Your task to perform on an android device: empty trash in google photos Image 0: 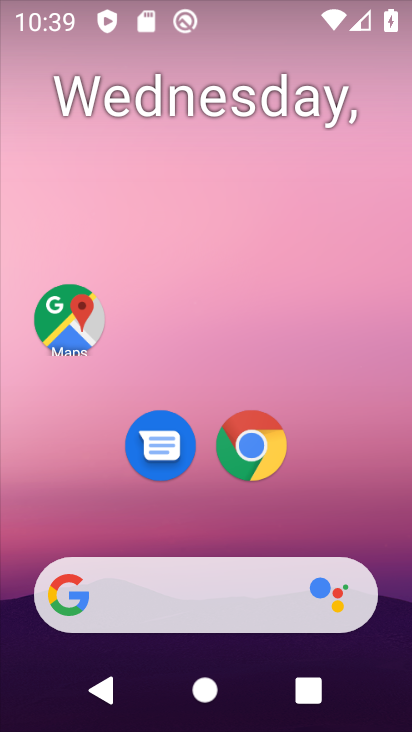
Step 0: drag from (260, 466) to (255, 57)
Your task to perform on an android device: empty trash in google photos Image 1: 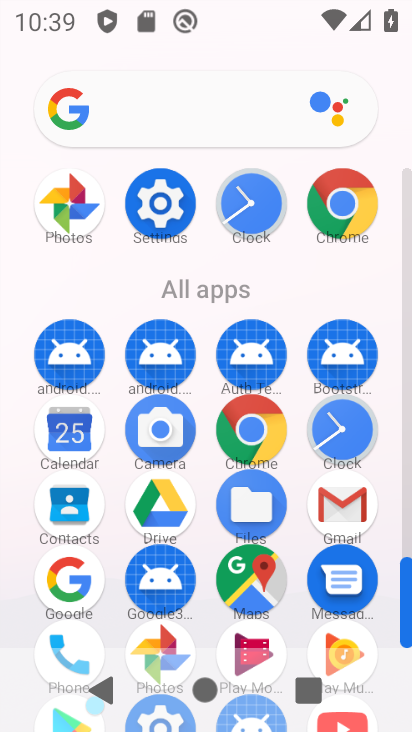
Step 1: click (155, 642)
Your task to perform on an android device: empty trash in google photos Image 2: 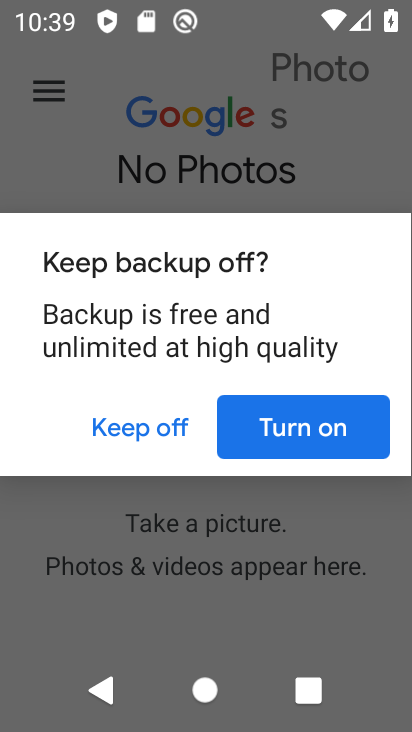
Step 2: click (149, 424)
Your task to perform on an android device: empty trash in google photos Image 3: 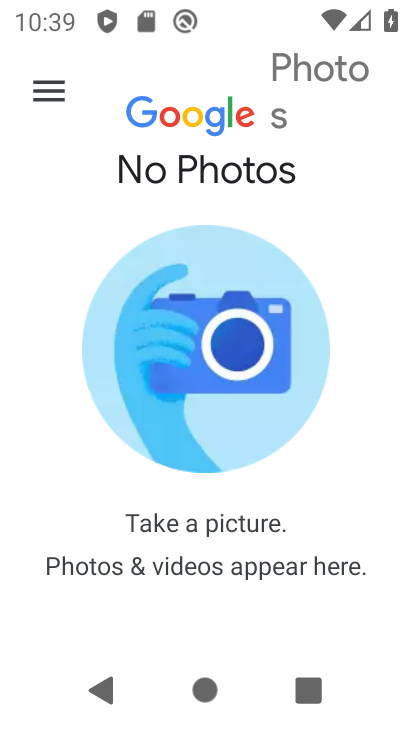
Step 3: click (37, 83)
Your task to perform on an android device: empty trash in google photos Image 4: 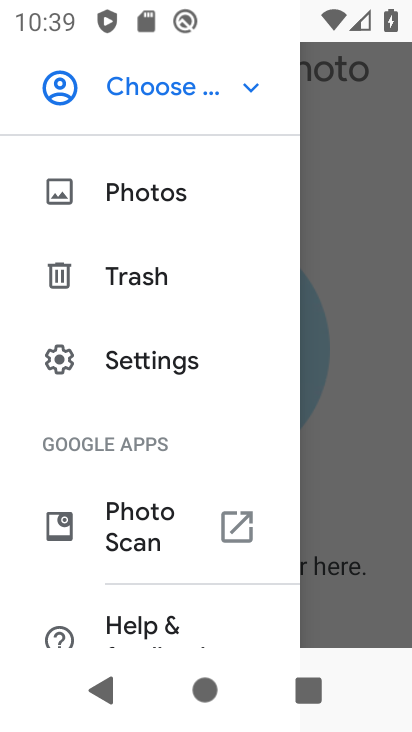
Step 4: click (169, 277)
Your task to perform on an android device: empty trash in google photos Image 5: 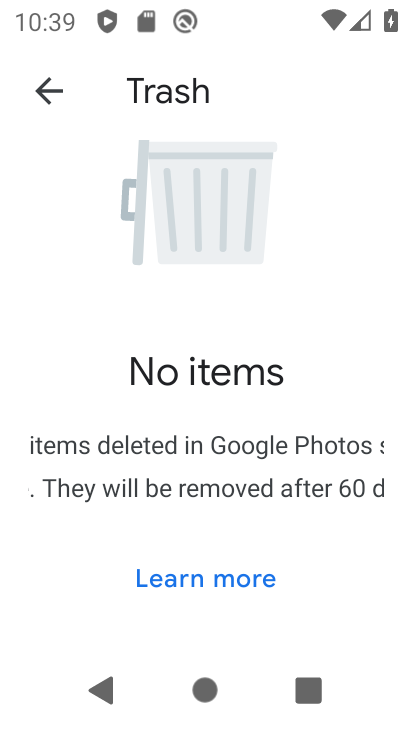
Step 5: task complete